Your task to perform on an android device: Go to calendar. Show me events next week Image 0: 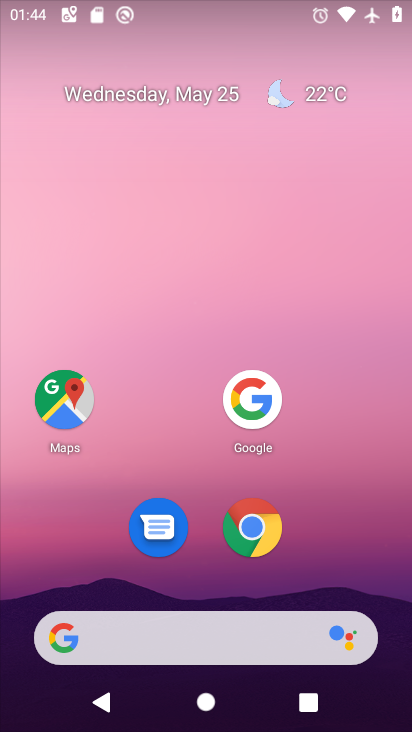
Step 0: press home button
Your task to perform on an android device: Go to calendar. Show me events next week Image 1: 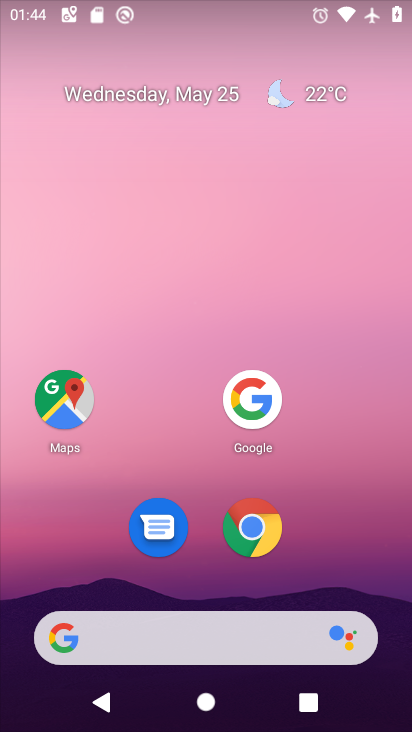
Step 1: drag from (163, 633) to (268, 200)
Your task to perform on an android device: Go to calendar. Show me events next week Image 2: 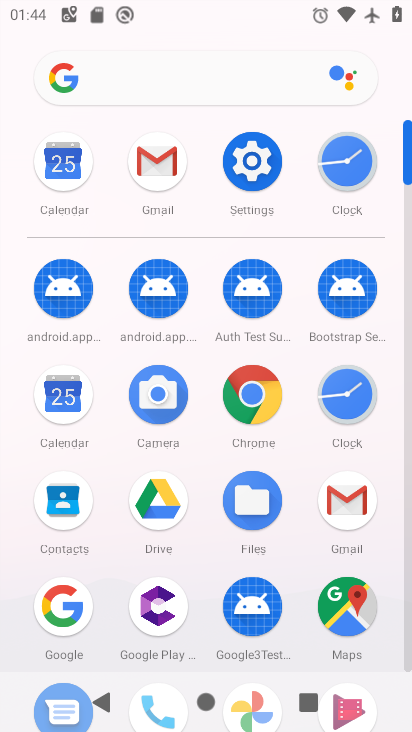
Step 2: click (69, 405)
Your task to perform on an android device: Go to calendar. Show me events next week Image 3: 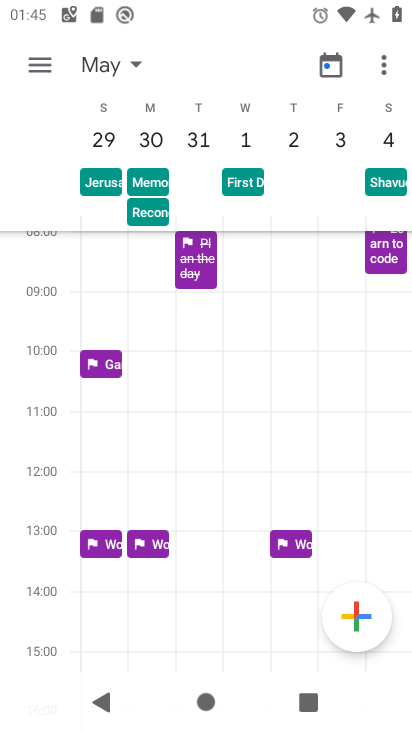
Step 3: click (53, 64)
Your task to perform on an android device: Go to calendar. Show me events next week Image 4: 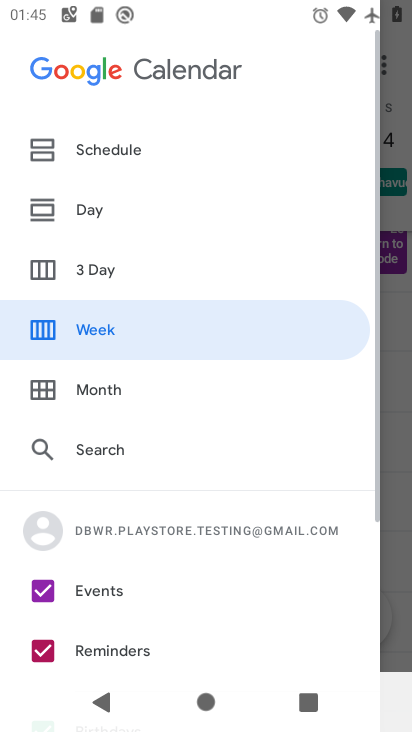
Step 4: click (111, 152)
Your task to perform on an android device: Go to calendar. Show me events next week Image 5: 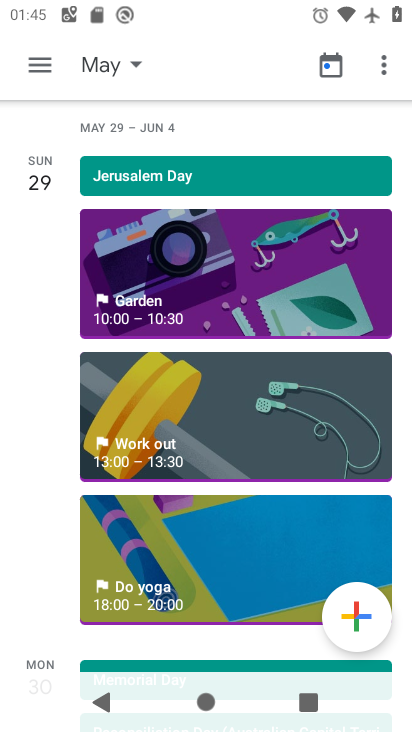
Step 5: click (204, 309)
Your task to perform on an android device: Go to calendar. Show me events next week Image 6: 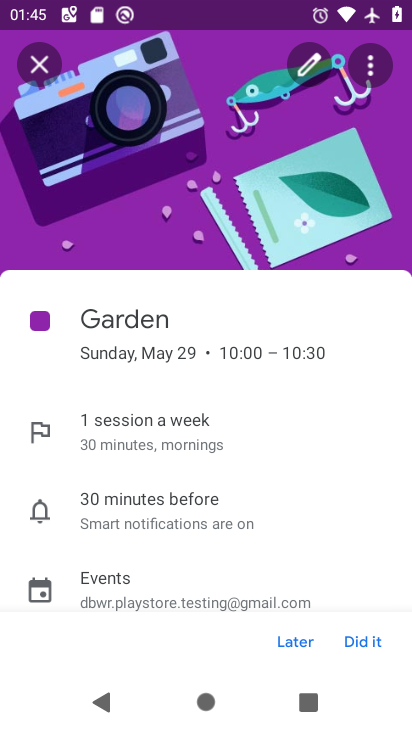
Step 6: task complete